Your task to perform on an android device: check battery use Image 0: 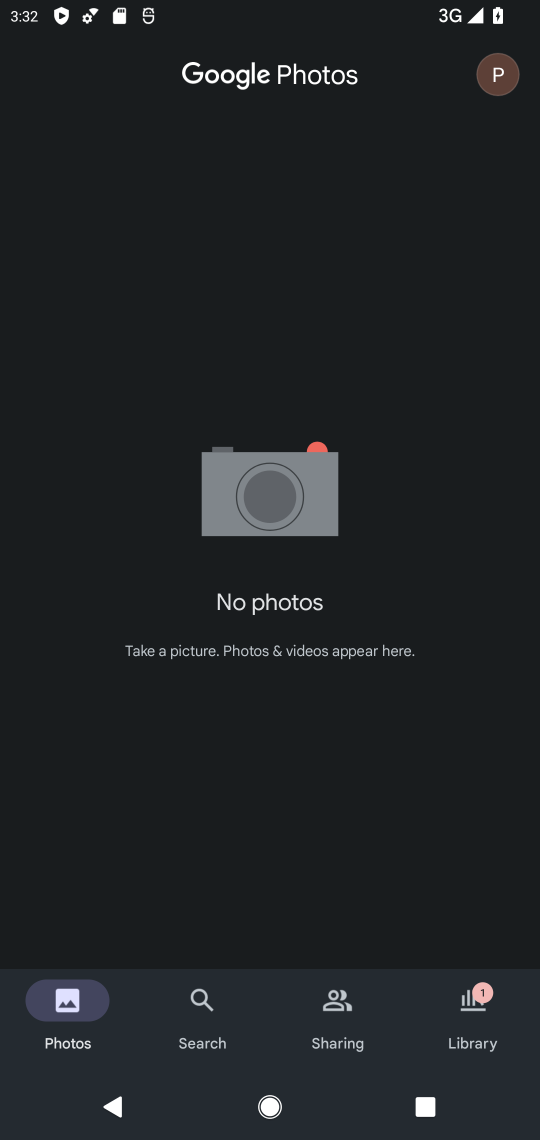
Step 0: press home button
Your task to perform on an android device: check battery use Image 1: 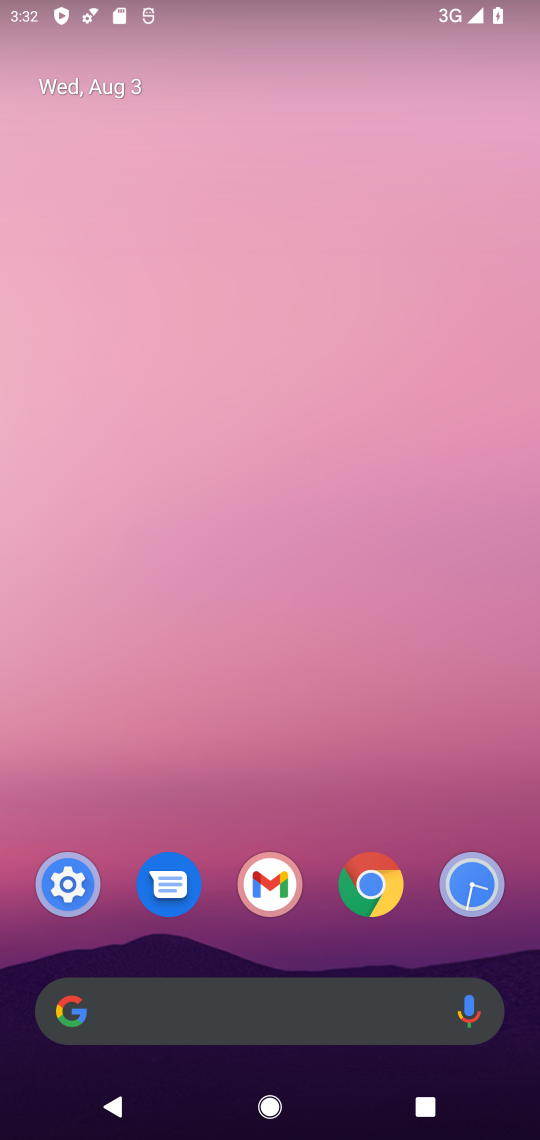
Step 1: click (77, 909)
Your task to perform on an android device: check battery use Image 2: 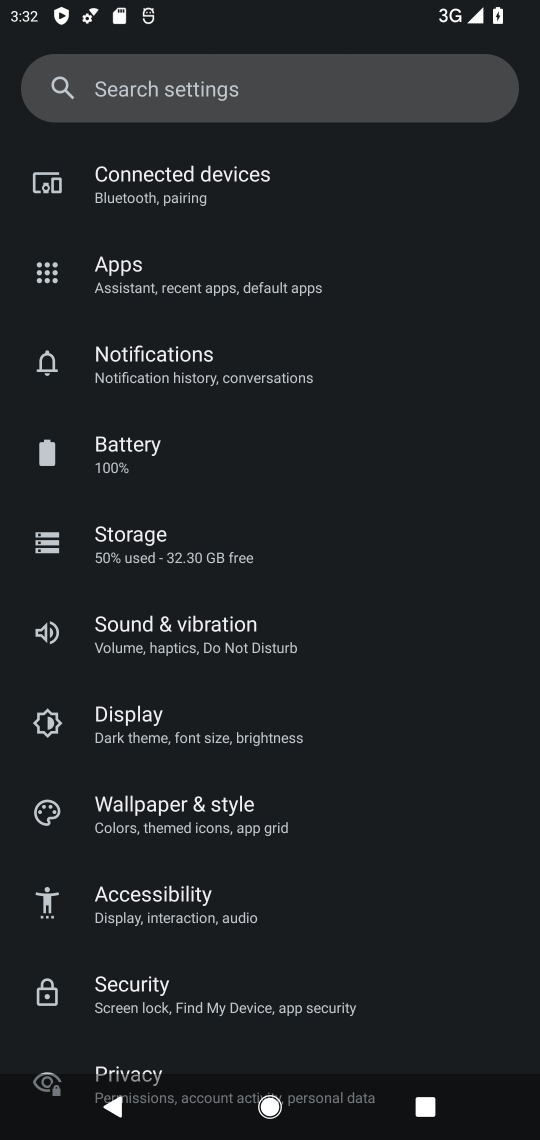
Step 2: click (141, 449)
Your task to perform on an android device: check battery use Image 3: 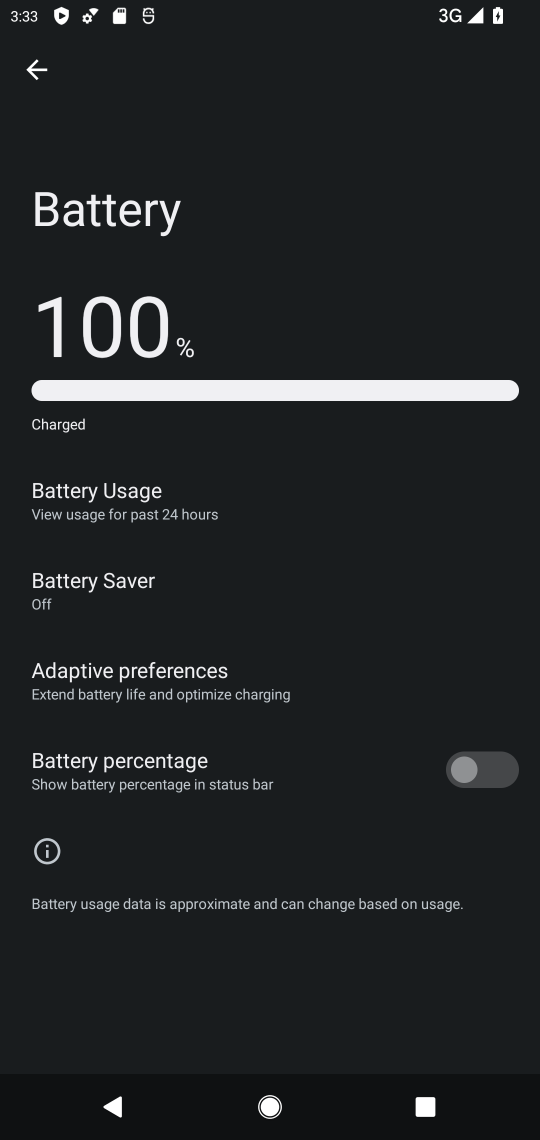
Step 3: click (146, 519)
Your task to perform on an android device: check battery use Image 4: 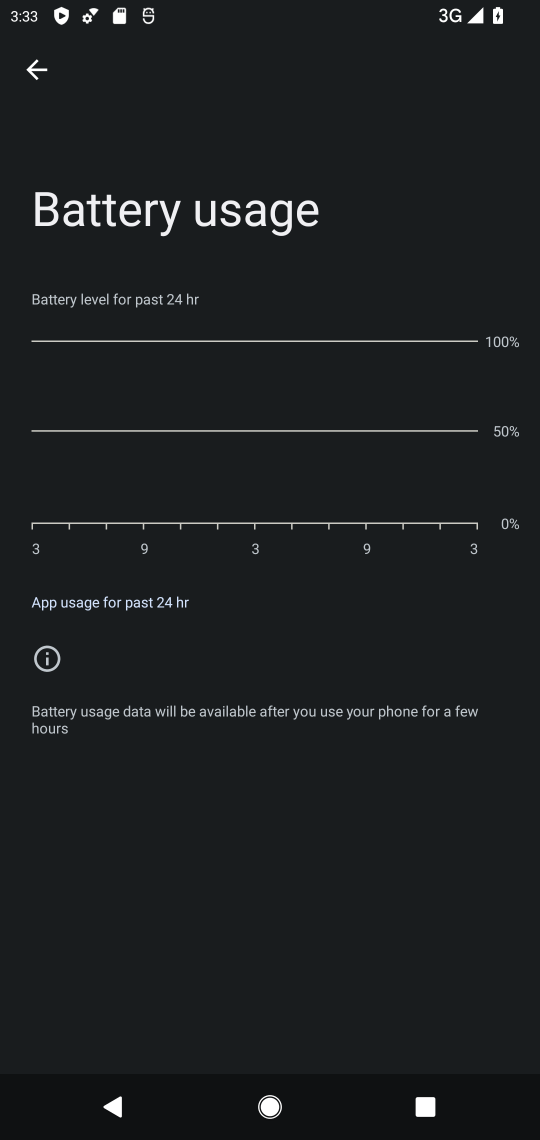
Step 4: task complete